Your task to perform on an android device: Open internet settings Image 0: 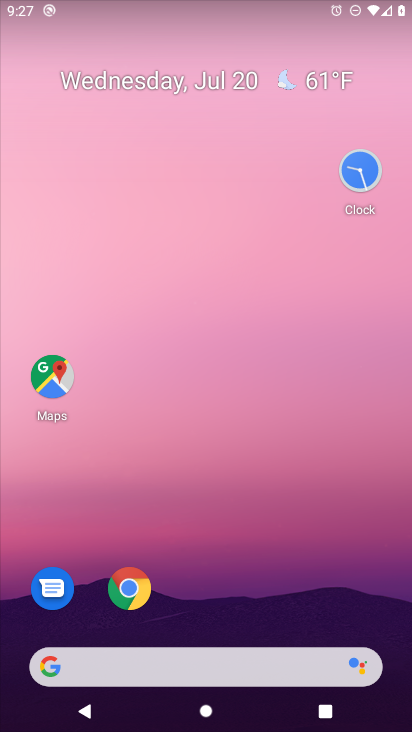
Step 0: drag from (38, 686) to (263, 54)
Your task to perform on an android device: Open internet settings Image 1: 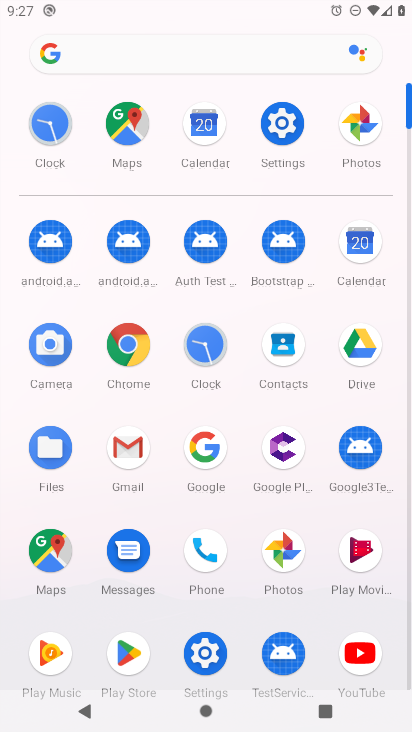
Step 1: click (210, 680)
Your task to perform on an android device: Open internet settings Image 2: 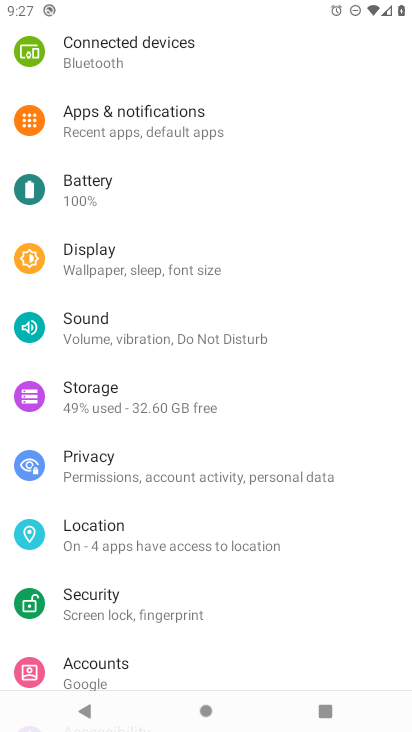
Step 2: drag from (308, 80) to (321, 345)
Your task to perform on an android device: Open internet settings Image 3: 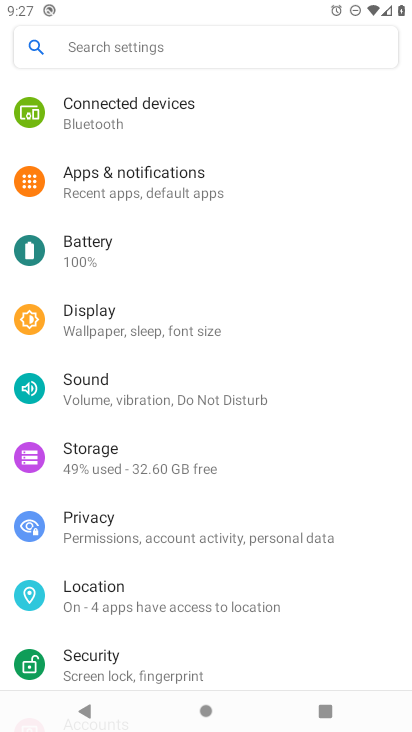
Step 3: drag from (312, 121) to (320, 731)
Your task to perform on an android device: Open internet settings Image 4: 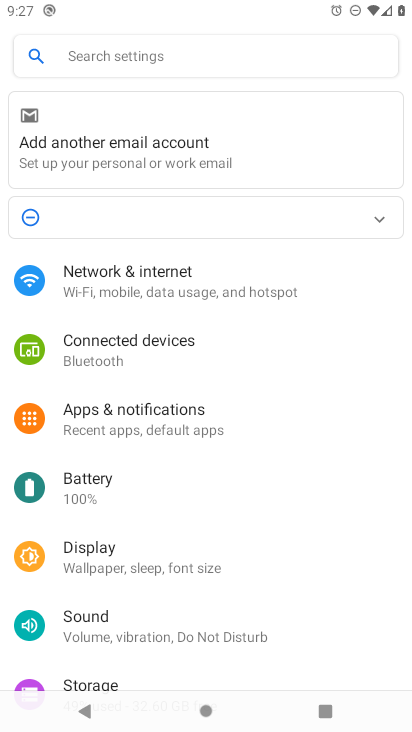
Step 4: click (175, 290)
Your task to perform on an android device: Open internet settings Image 5: 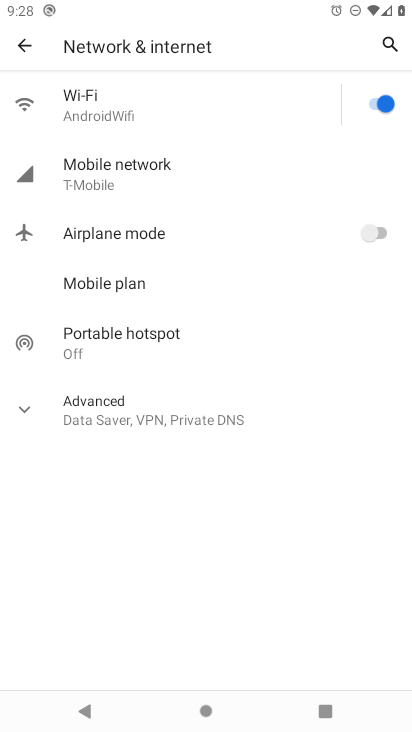
Step 5: task complete